Your task to perform on an android device: find snoozed emails in the gmail app Image 0: 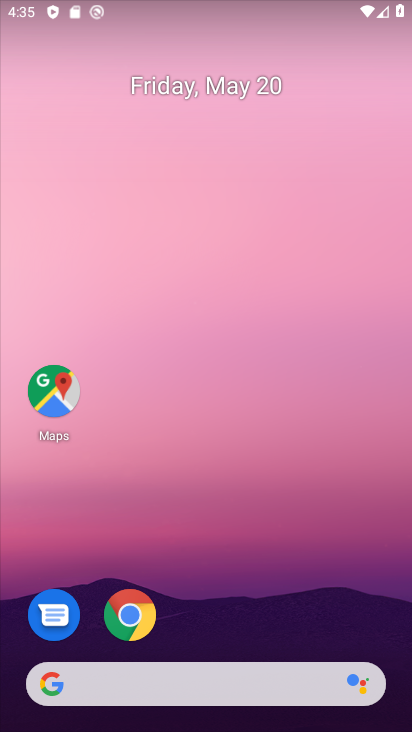
Step 0: drag from (295, 680) to (354, 114)
Your task to perform on an android device: find snoozed emails in the gmail app Image 1: 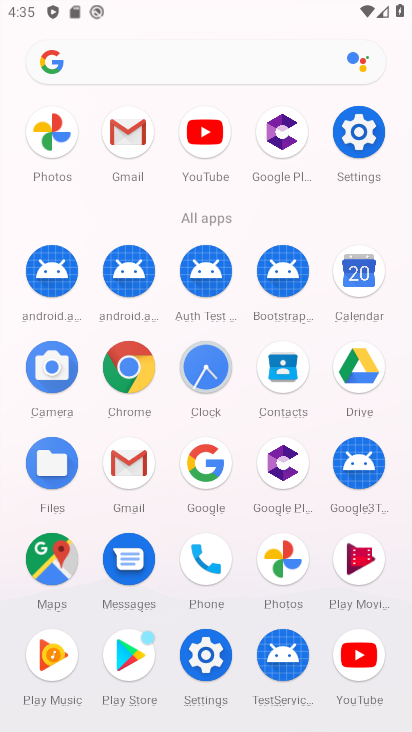
Step 1: click (124, 456)
Your task to perform on an android device: find snoozed emails in the gmail app Image 2: 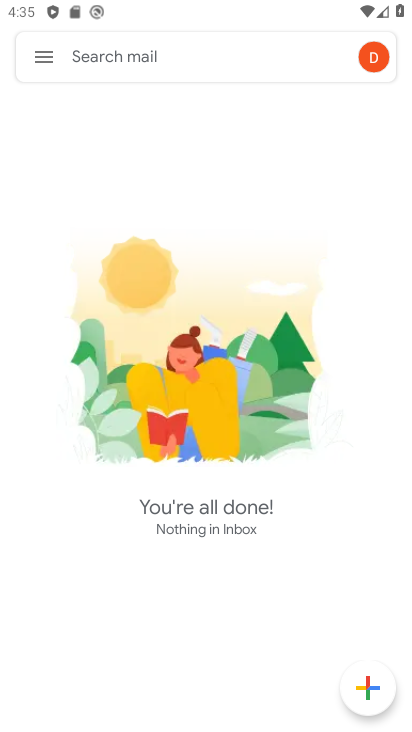
Step 2: click (29, 53)
Your task to perform on an android device: find snoozed emails in the gmail app Image 3: 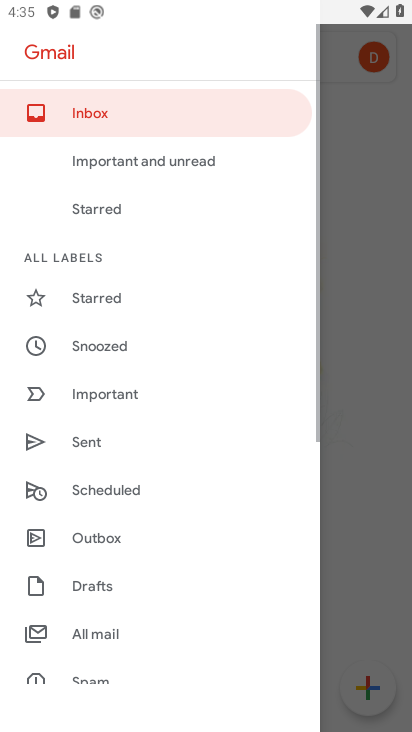
Step 3: click (122, 342)
Your task to perform on an android device: find snoozed emails in the gmail app Image 4: 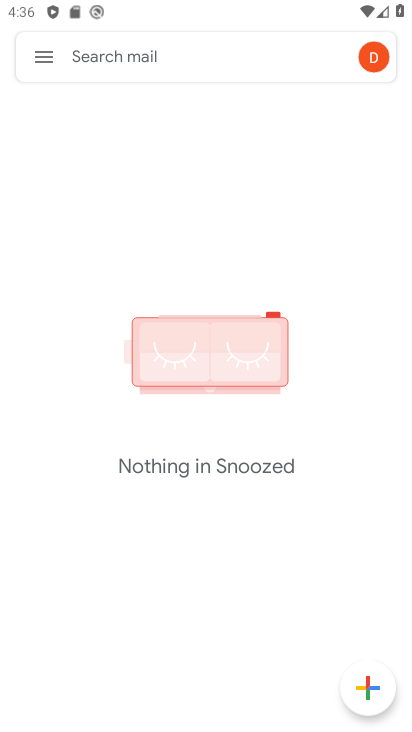
Step 4: task complete